Your task to perform on an android device: find snoozed emails in the gmail app Image 0: 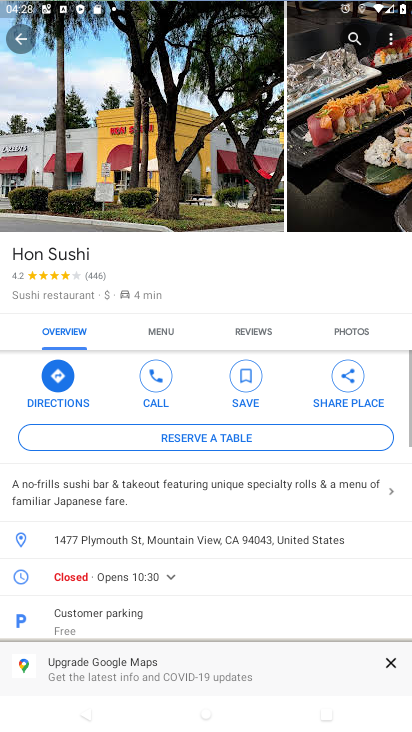
Step 0: press home button
Your task to perform on an android device: find snoozed emails in the gmail app Image 1: 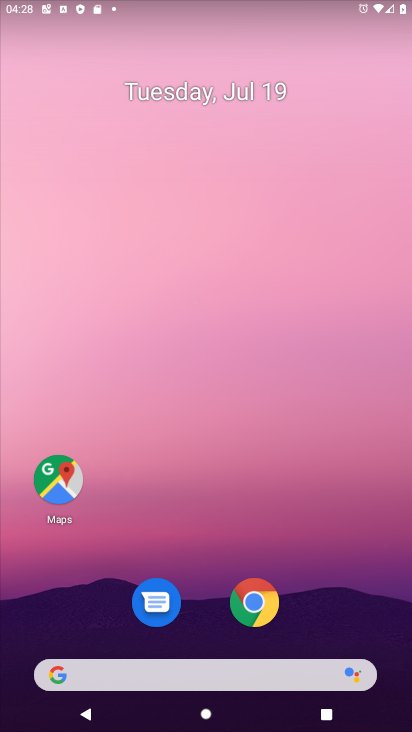
Step 1: drag from (189, 626) to (156, 18)
Your task to perform on an android device: find snoozed emails in the gmail app Image 2: 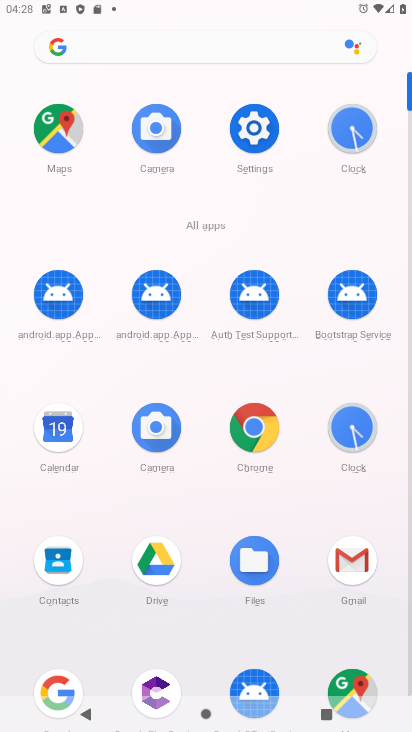
Step 2: click (358, 561)
Your task to perform on an android device: find snoozed emails in the gmail app Image 3: 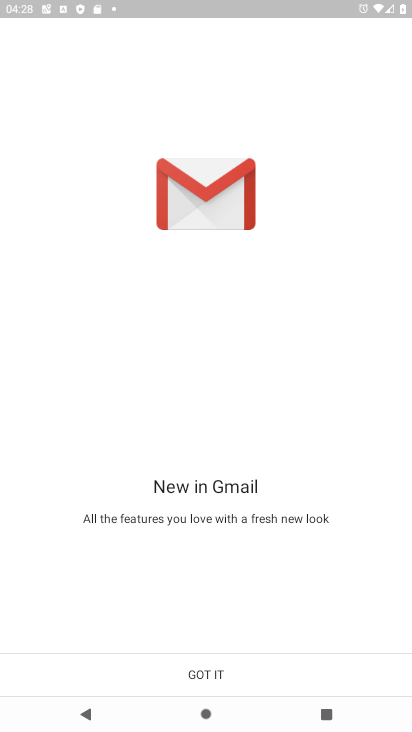
Step 3: click (143, 673)
Your task to perform on an android device: find snoozed emails in the gmail app Image 4: 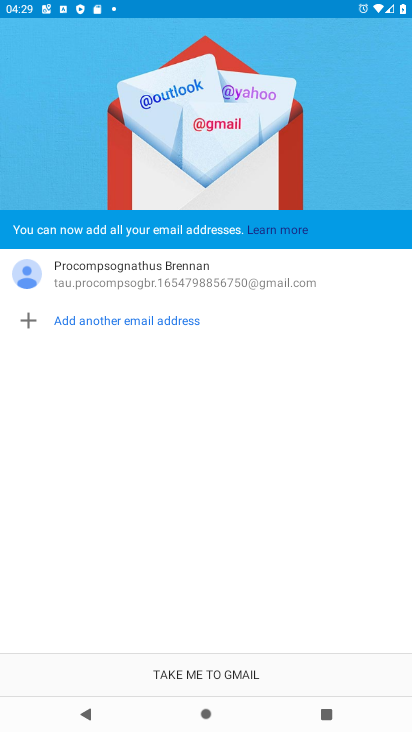
Step 4: click (234, 668)
Your task to perform on an android device: find snoozed emails in the gmail app Image 5: 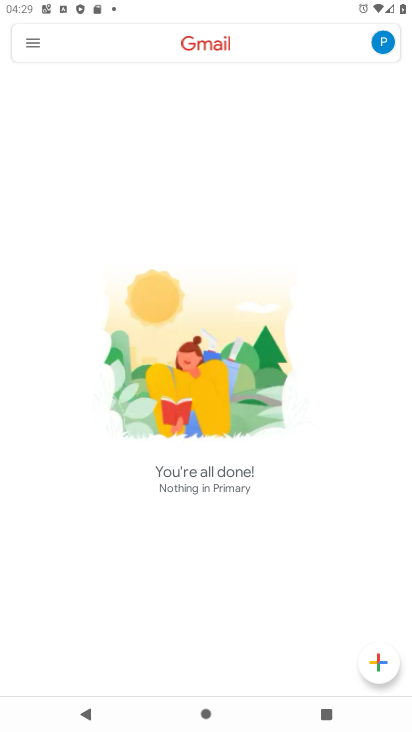
Step 5: click (45, 41)
Your task to perform on an android device: find snoozed emails in the gmail app Image 6: 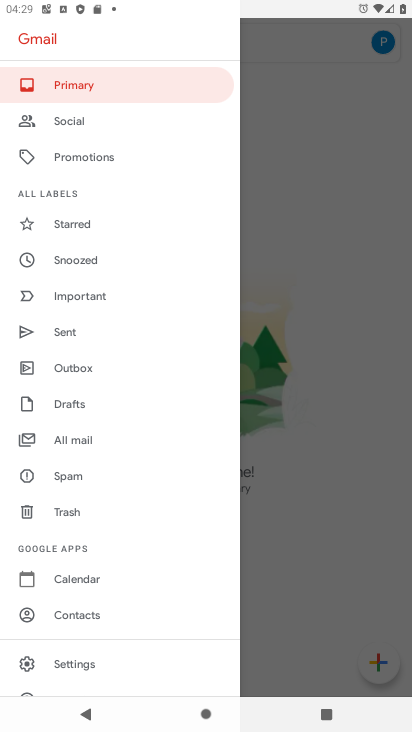
Step 6: click (124, 263)
Your task to perform on an android device: find snoozed emails in the gmail app Image 7: 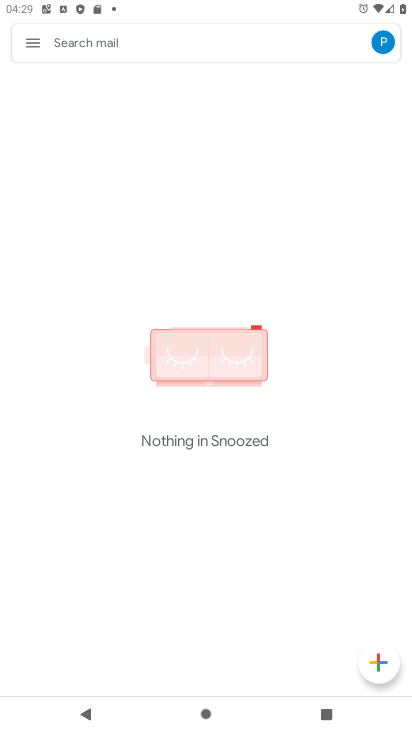
Step 7: task complete